Your task to perform on an android device: Do I have any events this weekend? Image 0: 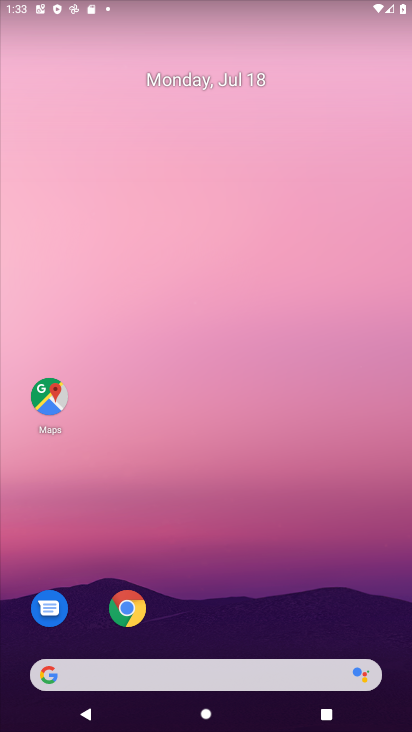
Step 0: drag from (373, 610) to (179, 27)
Your task to perform on an android device: Do I have any events this weekend? Image 1: 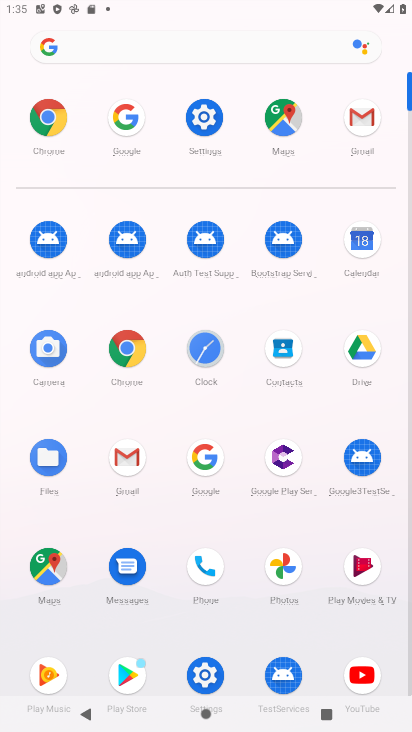
Step 1: click (364, 245)
Your task to perform on an android device: Do I have any events this weekend? Image 2: 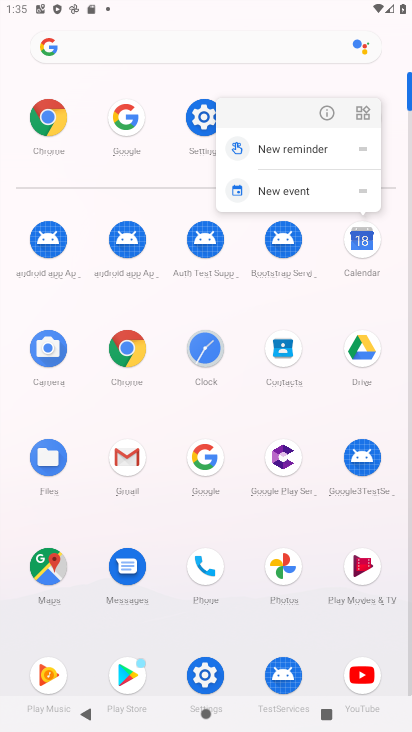
Step 2: click (363, 244)
Your task to perform on an android device: Do I have any events this weekend? Image 3: 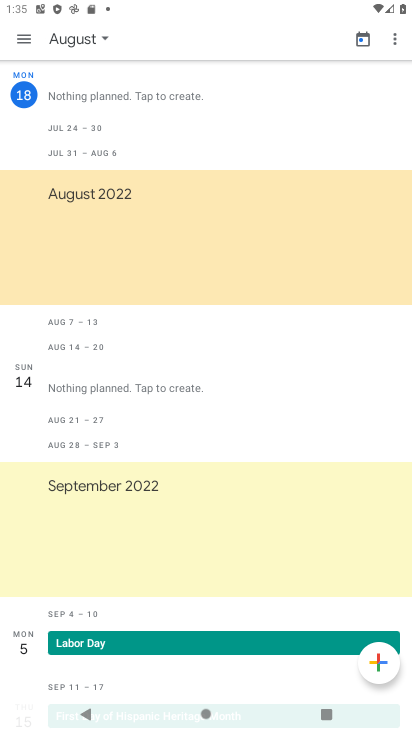
Step 3: task complete